Your task to perform on an android device: turn pop-ups on in chrome Image 0: 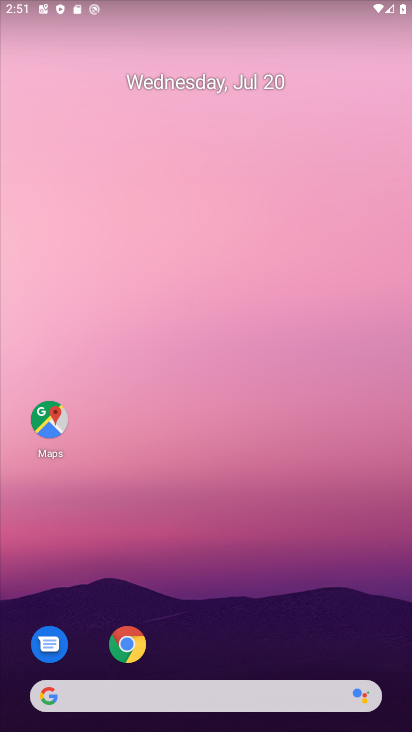
Step 0: click (123, 644)
Your task to perform on an android device: turn pop-ups on in chrome Image 1: 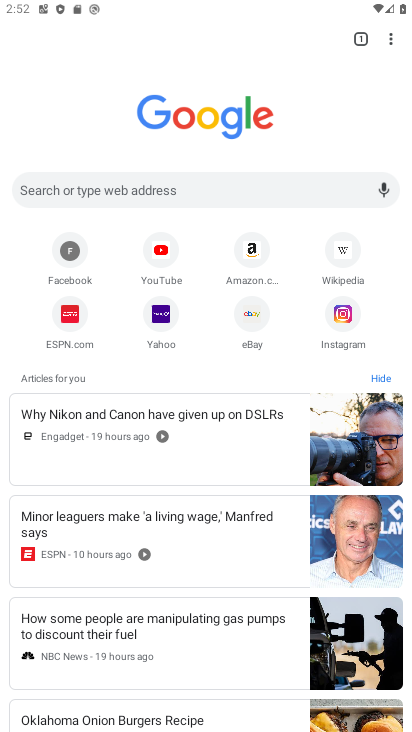
Step 1: click (393, 40)
Your task to perform on an android device: turn pop-ups on in chrome Image 2: 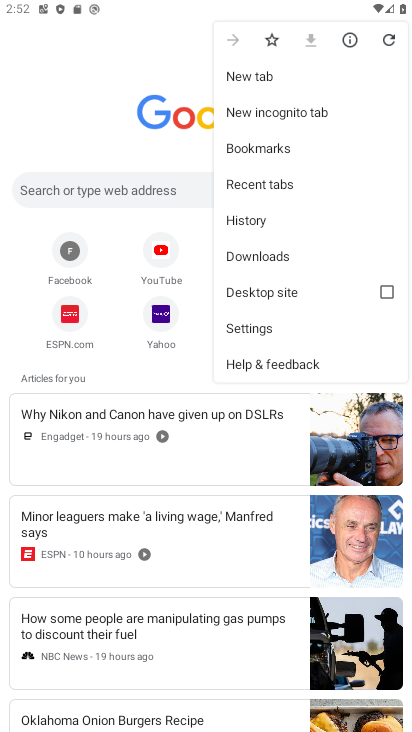
Step 2: click (240, 326)
Your task to perform on an android device: turn pop-ups on in chrome Image 3: 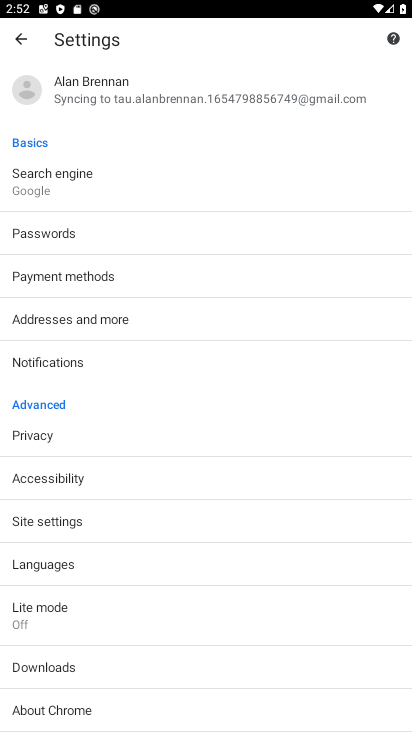
Step 3: click (30, 518)
Your task to perform on an android device: turn pop-ups on in chrome Image 4: 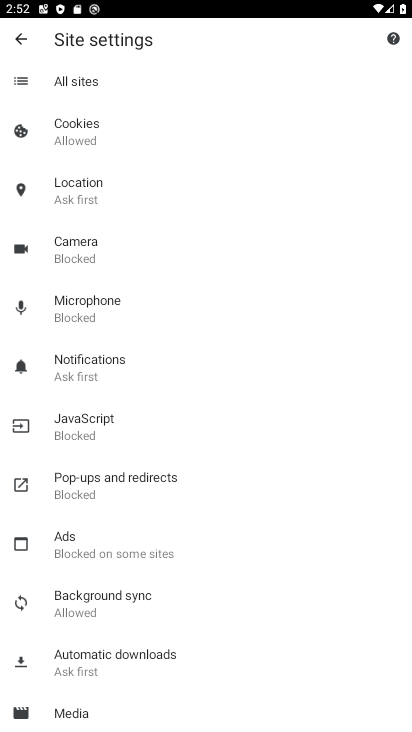
Step 4: click (125, 478)
Your task to perform on an android device: turn pop-ups on in chrome Image 5: 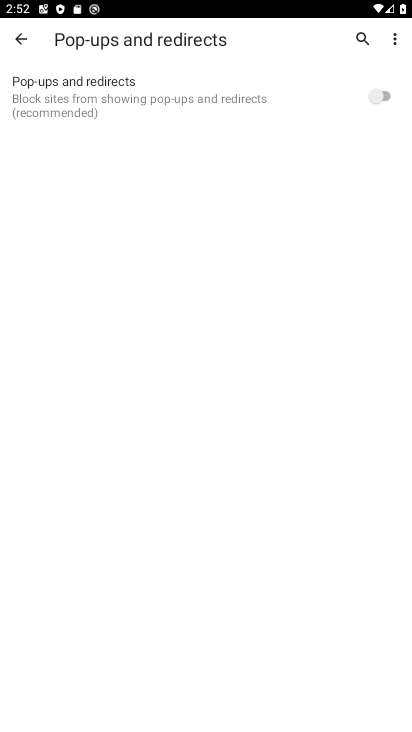
Step 5: click (369, 106)
Your task to perform on an android device: turn pop-ups on in chrome Image 6: 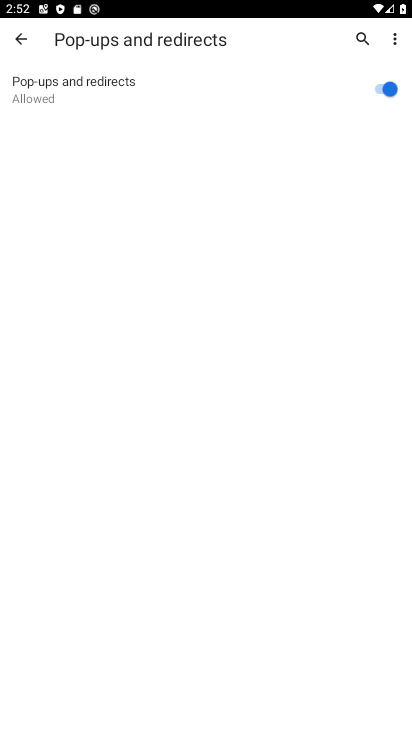
Step 6: task complete